Your task to perform on an android device: delete browsing data in the chrome app Image 0: 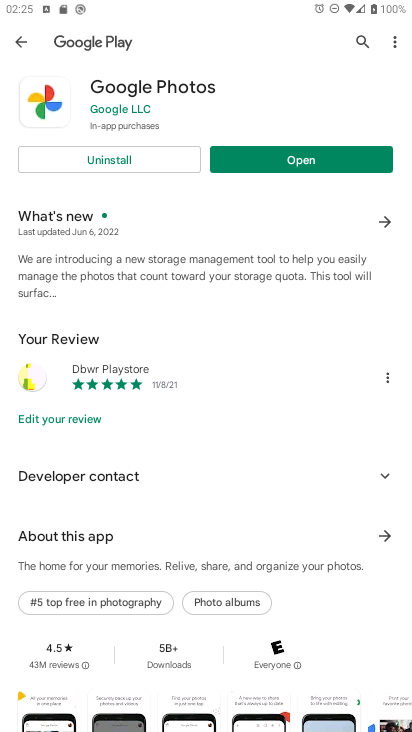
Step 0: press home button
Your task to perform on an android device: delete browsing data in the chrome app Image 1: 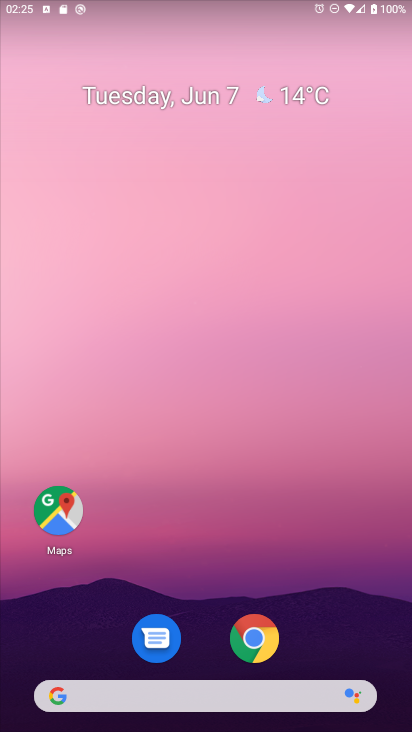
Step 1: drag from (201, 725) to (235, 205)
Your task to perform on an android device: delete browsing data in the chrome app Image 2: 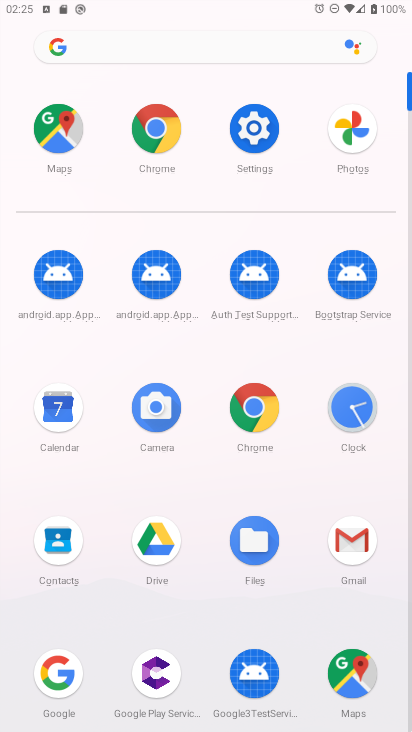
Step 2: click (162, 121)
Your task to perform on an android device: delete browsing data in the chrome app Image 3: 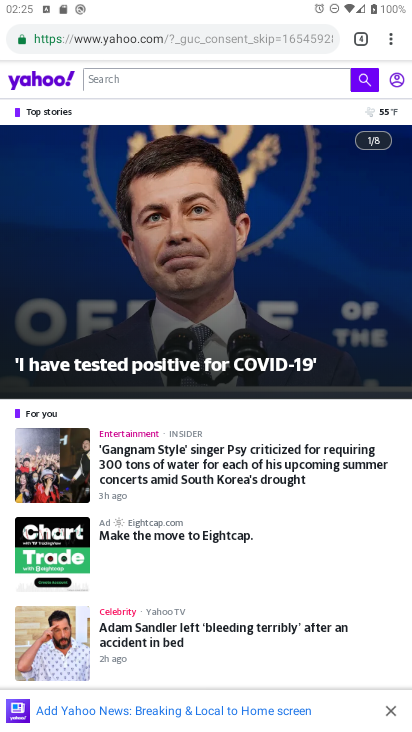
Step 3: click (390, 34)
Your task to perform on an android device: delete browsing data in the chrome app Image 4: 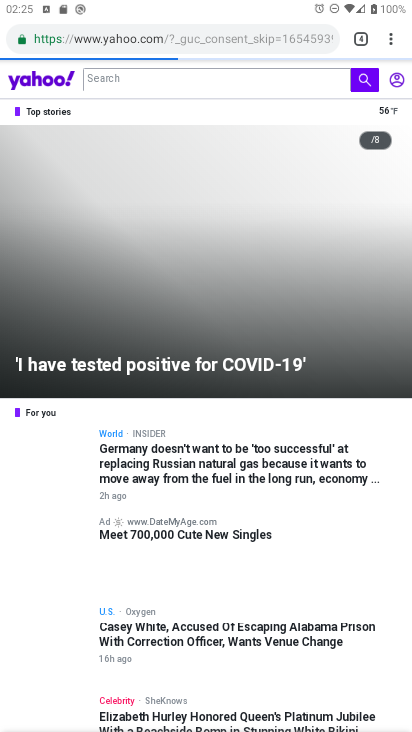
Step 4: click (394, 48)
Your task to perform on an android device: delete browsing data in the chrome app Image 5: 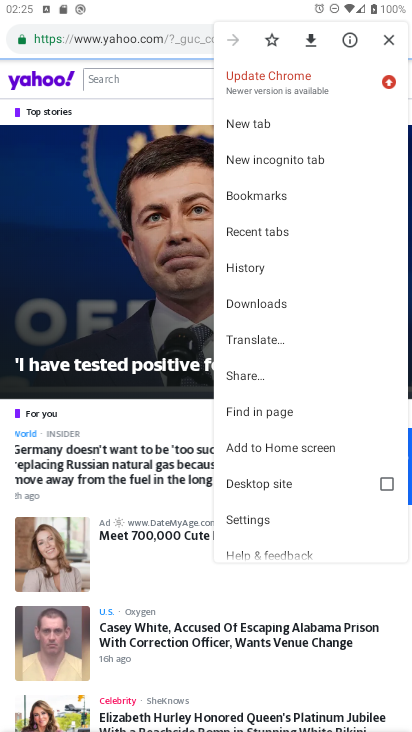
Step 5: click (259, 522)
Your task to perform on an android device: delete browsing data in the chrome app Image 6: 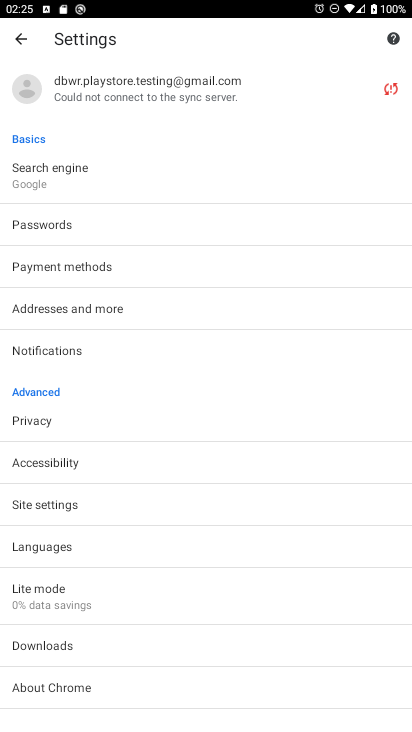
Step 6: click (66, 494)
Your task to perform on an android device: delete browsing data in the chrome app Image 7: 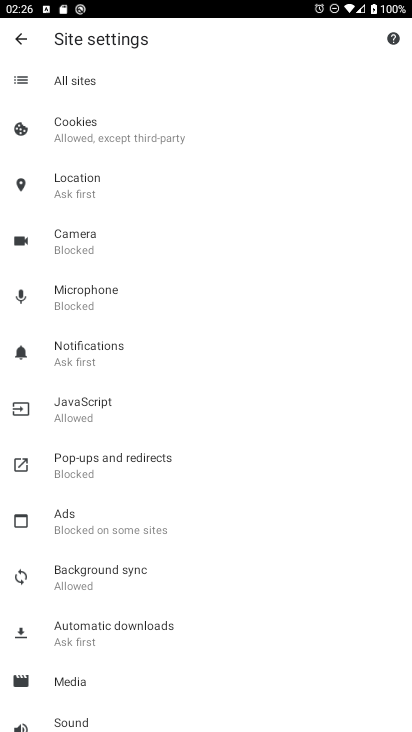
Step 7: click (26, 46)
Your task to perform on an android device: delete browsing data in the chrome app Image 8: 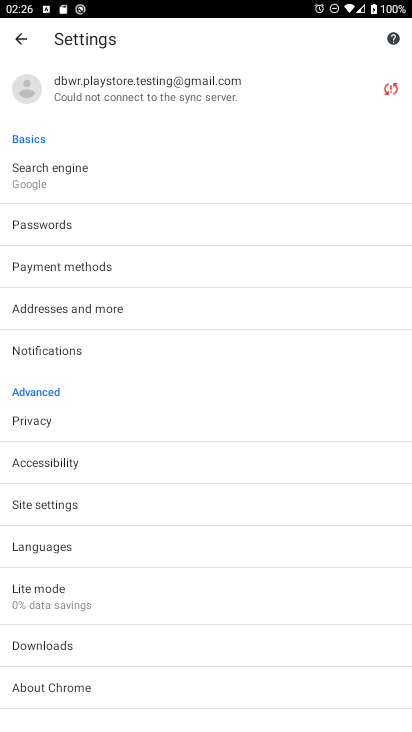
Step 8: click (43, 416)
Your task to perform on an android device: delete browsing data in the chrome app Image 9: 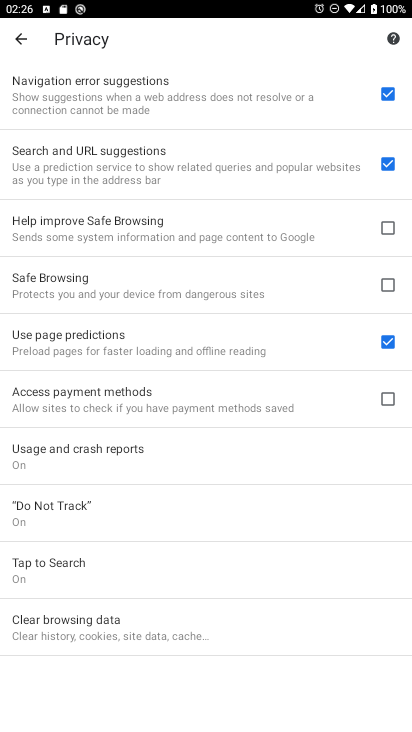
Step 9: click (102, 606)
Your task to perform on an android device: delete browsing data in the chrome app Image 10: 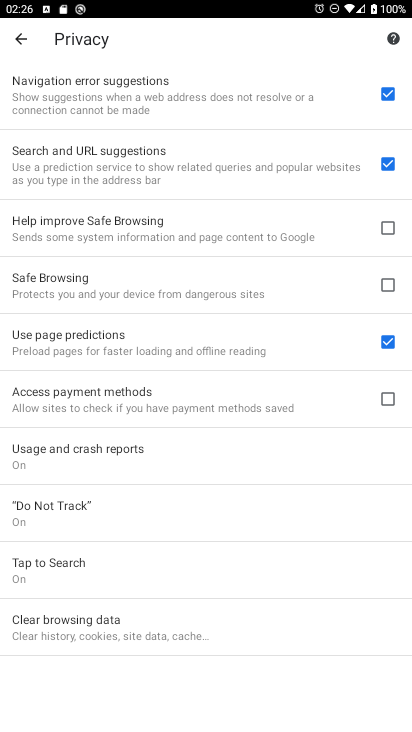
Step 10: click (48, 634)
Your task to perform on an android device: delete browsing data in the chrome app Image 11: 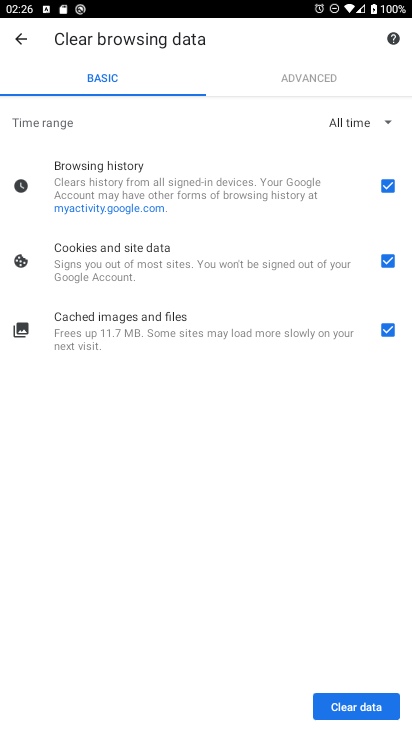
Step 11: click (354, 706)
Your task to perform on an android device: delete browsing data in the chrome app Image 12: 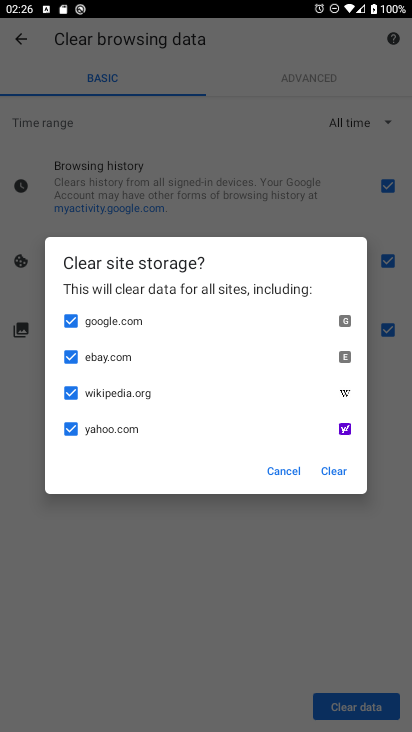
Step 12: task complete